Your task to perform on an android device: refresh tabs in the chrome app Image 0: 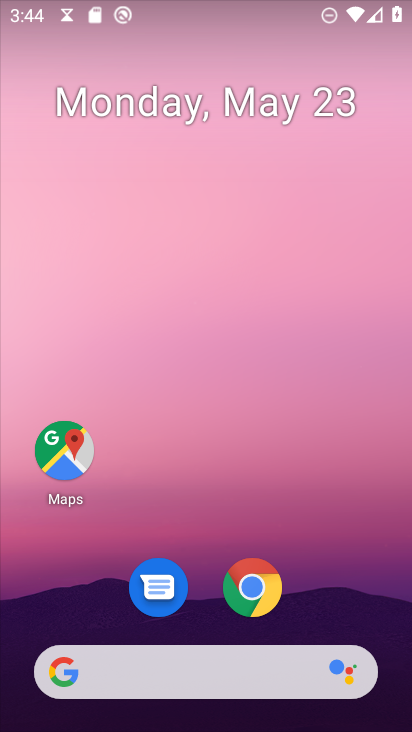
Step 0: drag from (215, 622) to (242, 0)
Your task to perform on an android device: refresh tabs in the chrome app Image 1: 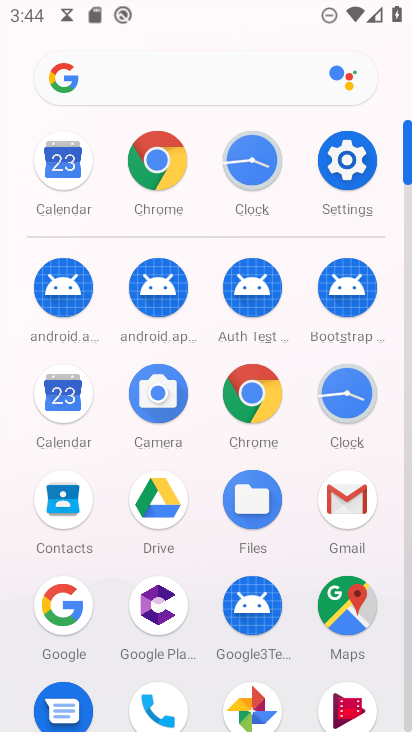
Step 1: click (261, 397)
Your task to perform on an android device: refresh tabs in the chrome app Image 2: 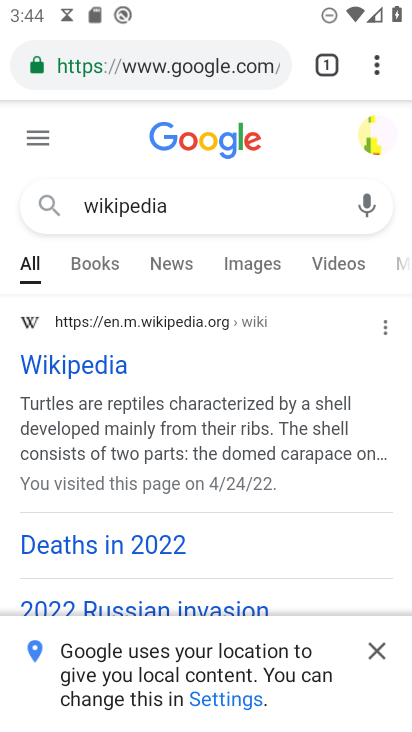
Step 2: click (380, 50)
Your task to perform on an android device: refresh tabs in the chrome app Image 3: 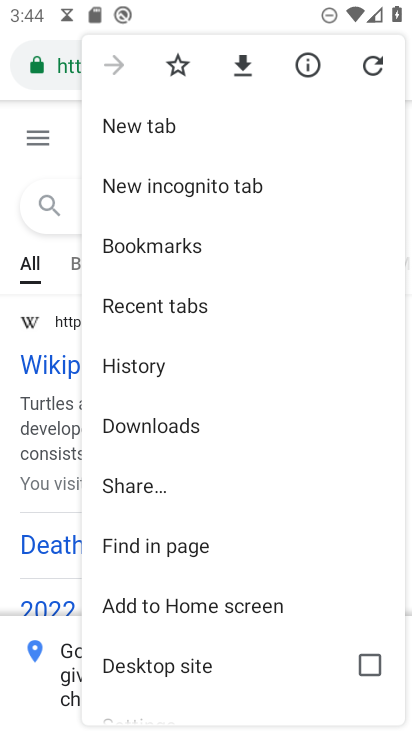
Step 3: drag from (139, 652) to (181, 383)
Your task to perform on an android device: refresh tabs in the chrome app Image 4: 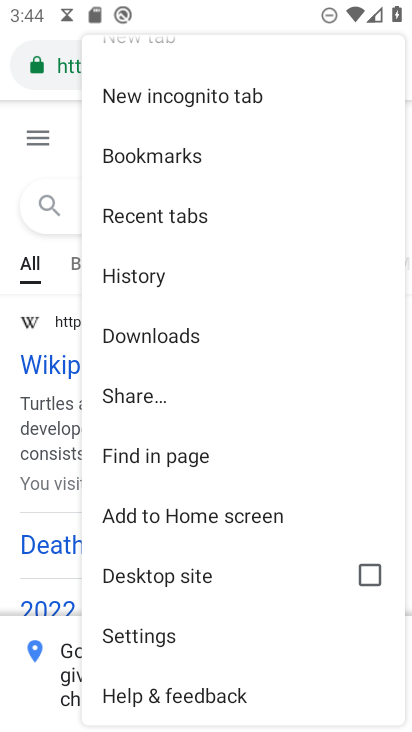
Step 4: drag from (200, 178) to (202, 731)
Your task to perform on an android device: refresh tabs in the chrome app Image 5: 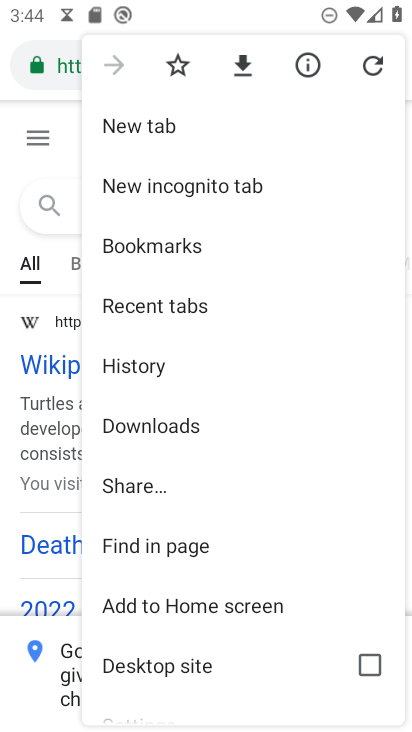
Step 5: click (367, 56)
Your task to perform on an android device: refresh tabs in the chrome app Image 6: 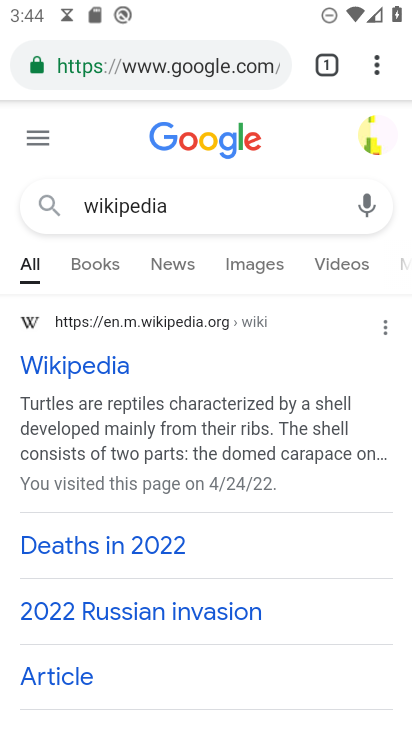
Step 6: task complete